Your task to perform on an android device: clear history in the chrome app Image 0: 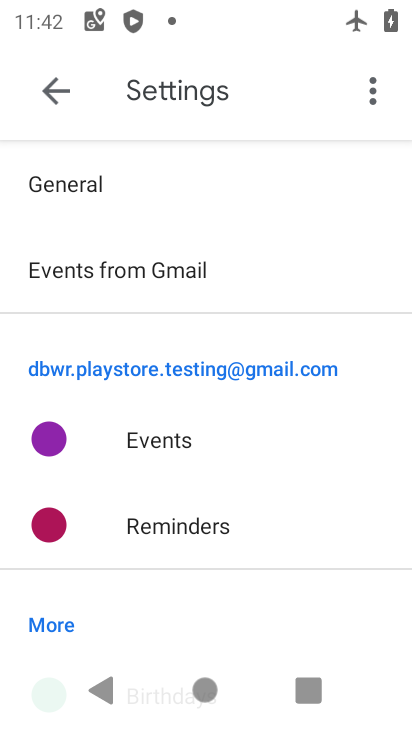
Step 0: press home button
Your task to perform on an android device: clear history in the chrome app Image 1: 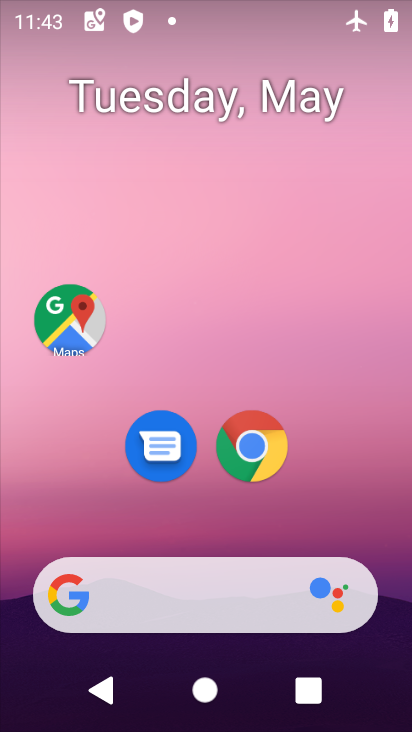
Step 1: click (247, 446)
Your task to perform on an android device: clear history in the chrome app Image 2: 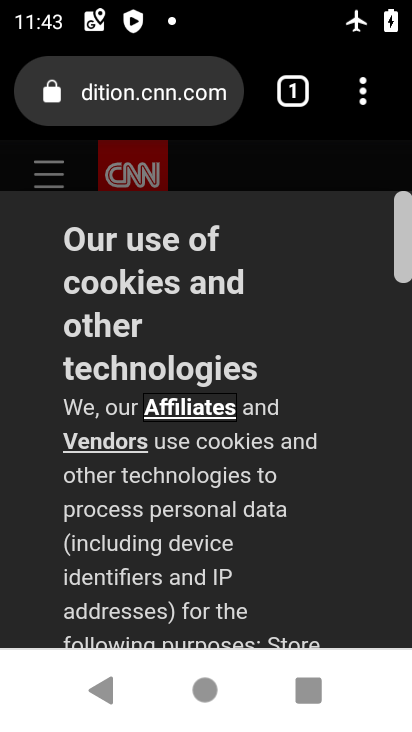
Step 2: click (366, 105)
Your task to perform on an android device: clear history in the chrome app Image 3: 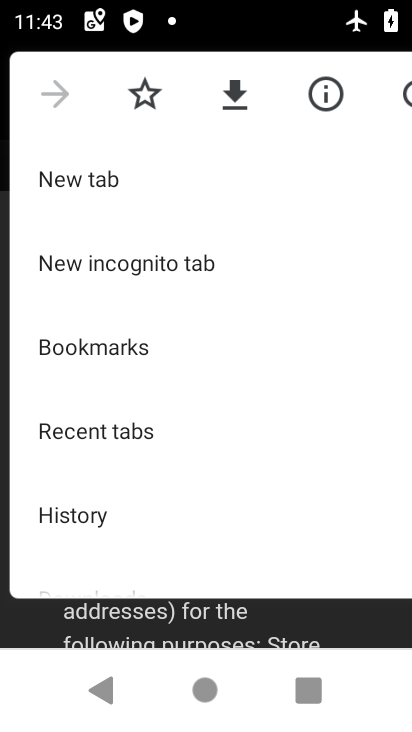
Step 3: click (64, 513)
Your task to perform on an android device: clear history in the chrome app Image 4: 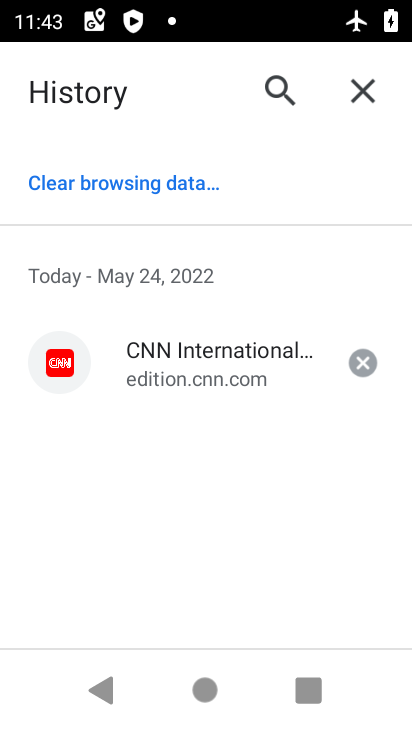
Step 4: click (144, 185)
Your task to perform on an android device: clear history in the chrome app Image 5: 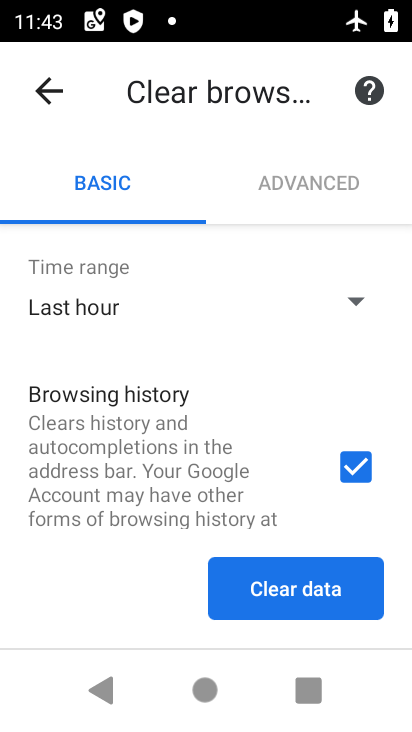
Step 5: drag from (130, 594) to (163, 373)
Your task to perform on an android device: clear history in the chrome app Image 6: 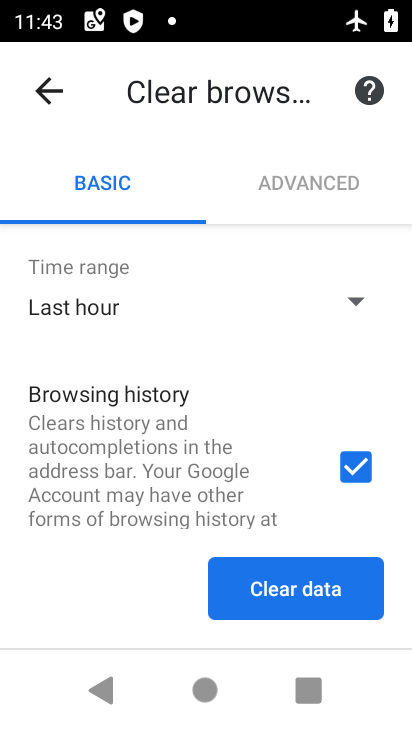
Step 6: click (163, 373)
Your task to perform on an android device: clear history in the chrome app Image 7: 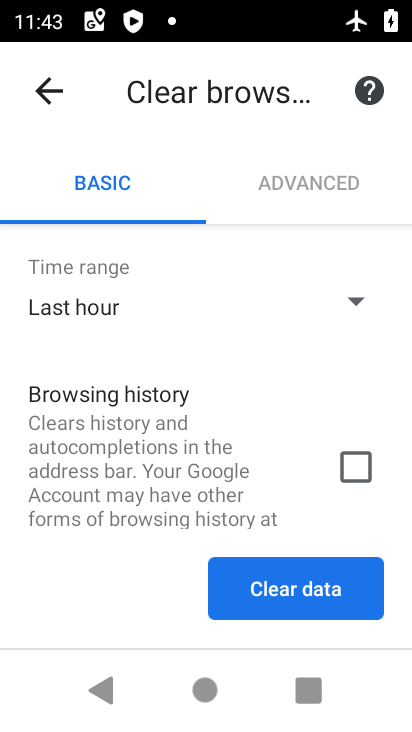
Step 7: click (365, 462)
Your task to perform on an android device: clear history in the chrome app Image 8: 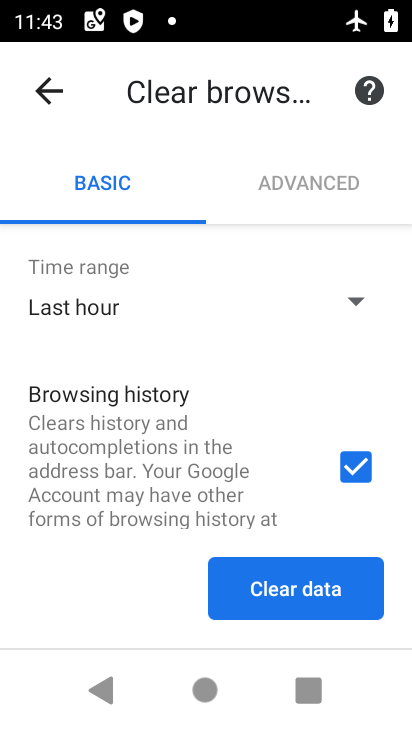
Step 8: drag from (281, 490) to (279, 232)
Your task to perform on an android device: clear history in the chrome app Image 9: 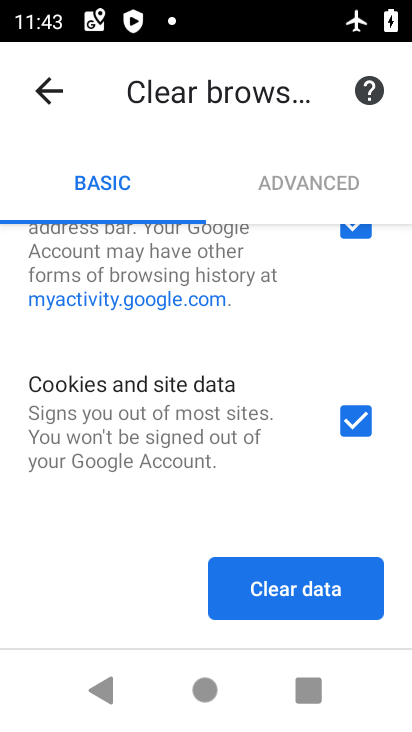
Step 9: click (348, 432)
Your task to perform on an android device: clear history in the chrome app Image 10: 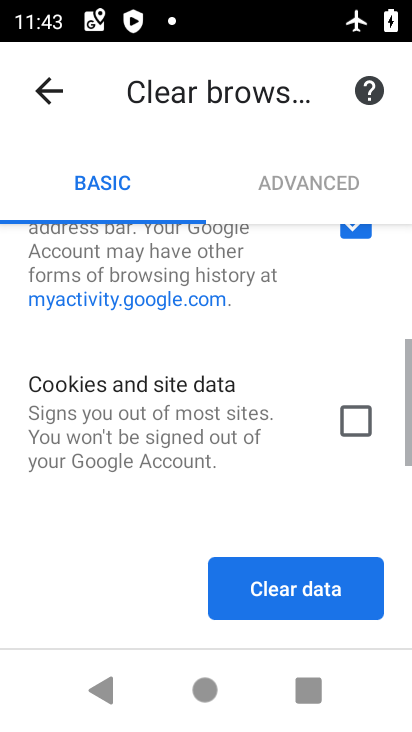
Step 10: drag from (234, 533) to (247, 291)
Your task to perform on an android device: clear history in the chrome app Image 11: 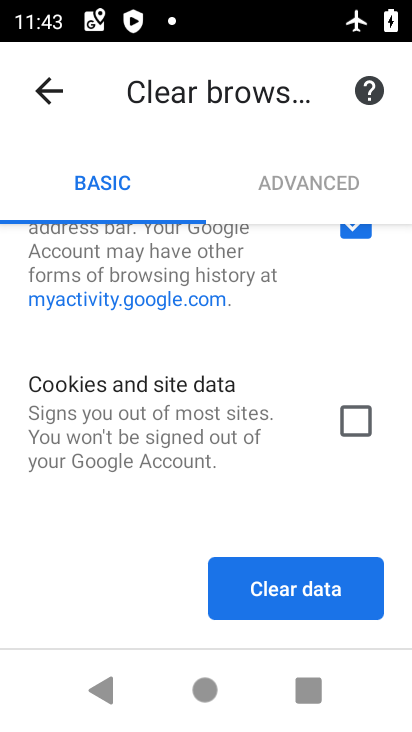
Step 11: drag from (88, 535) to (131, 256)
Your task to perform on an android device: clear history in the chrome app Image 12: 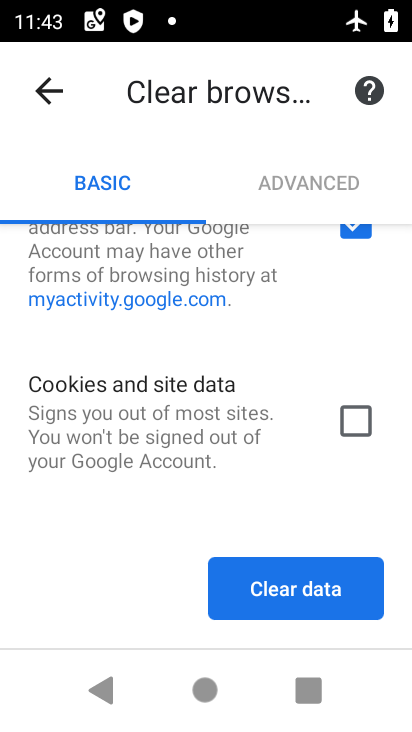
Step 12: drag from (272, 485) to (271, 314)
Your task to perform on an android device: clear history in the chrome app Image 13: 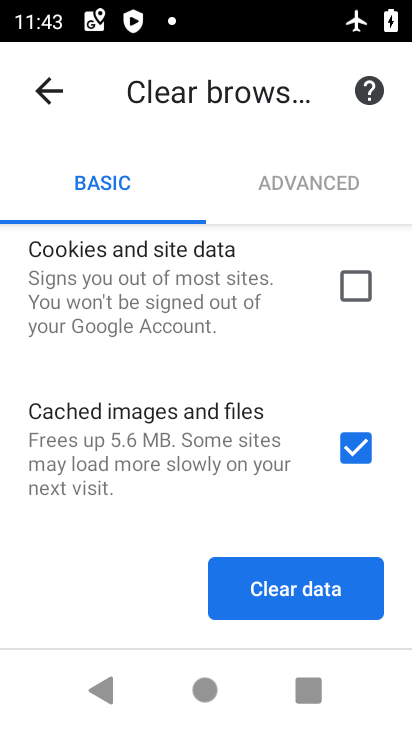
Step 13: click (351, 444)
Your task to perform on an android device: clear history in the chrome app Image 14: 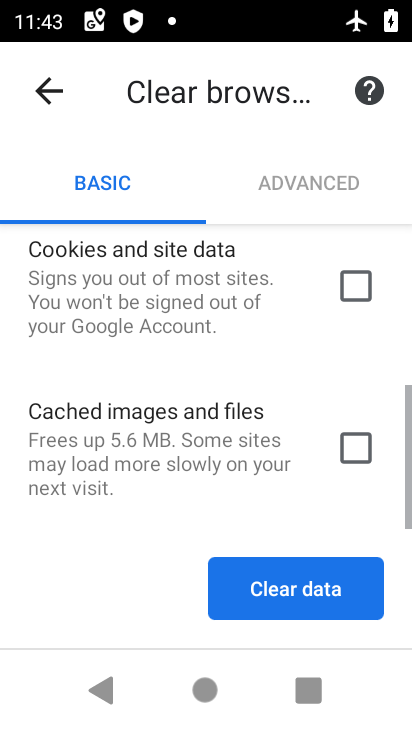
Step 14: click (286, 593)
Your task to perform on an android device: clear history in the chrome app Image 15: 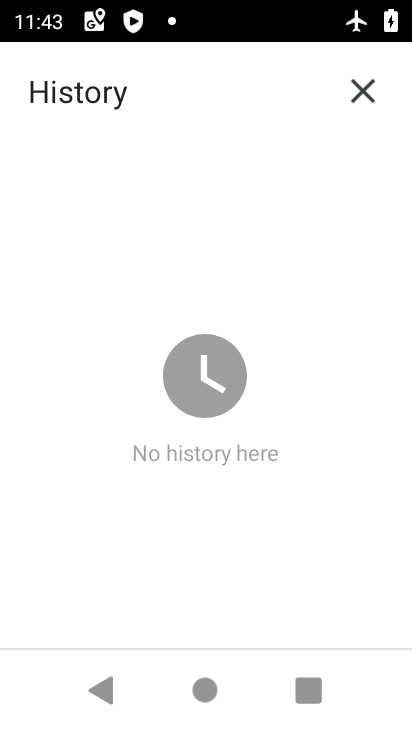
Step 15: task complete